Your task to perform on an android device: Go to Android settings Image 0: 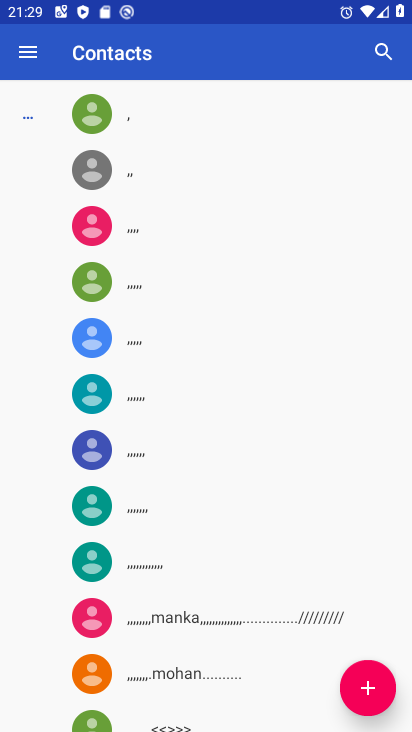
Step 0: press home button
Your task to perform on an android device: Go to Android settings Image 1: 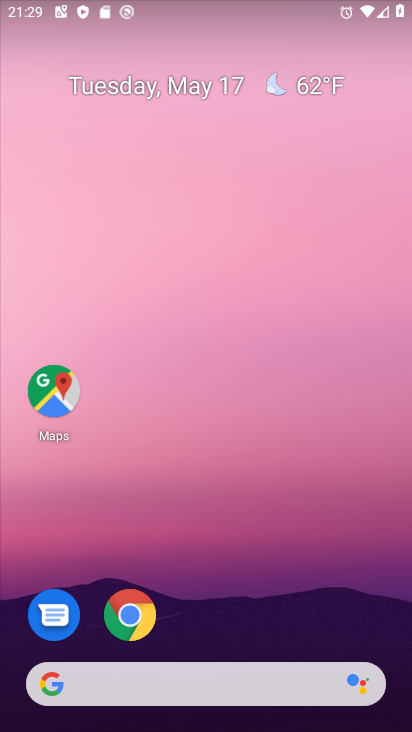
Step 1: drag from (238, 648) to (226, 117)
Your task to perform on an android device: Go to Android settings Image 2: 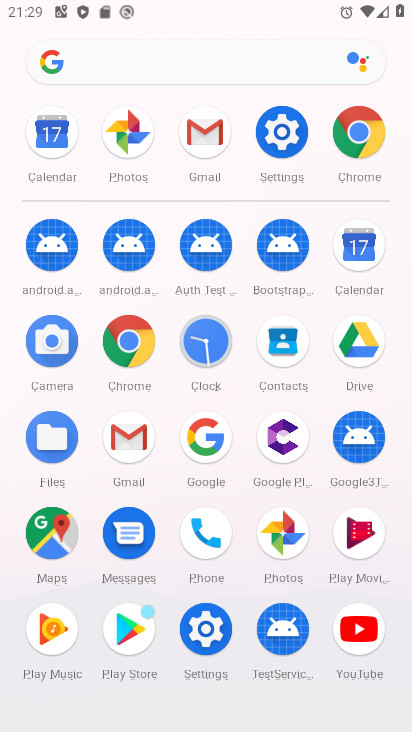
Step 2: click (222, 653)
Your task to perform on an android device: Go to Android settings Image 3: 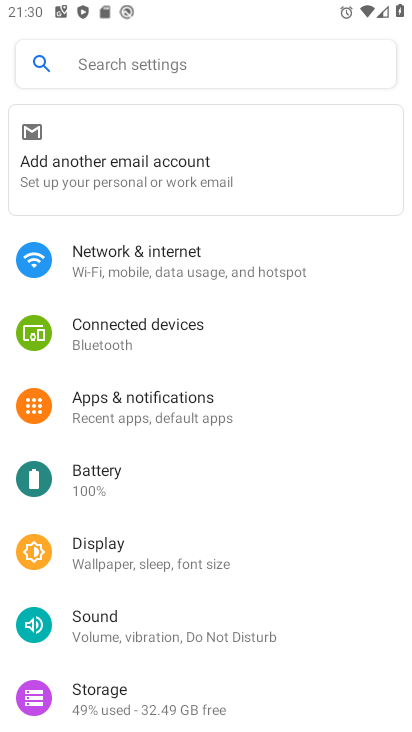
Step 3: drag from (210, 642) to (208, 101)
Your task to perform on an android device: Go to Android settings Image 4: 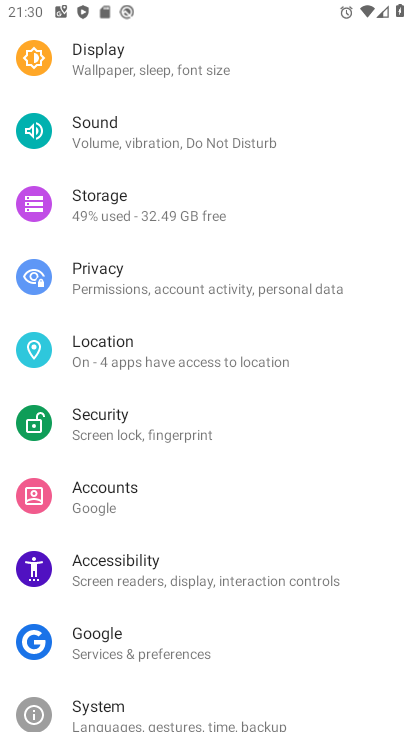
Step 4: drag from (163, 650) to (72, 38)
Your task to perform on an android device: Go to Android settings Image 5: 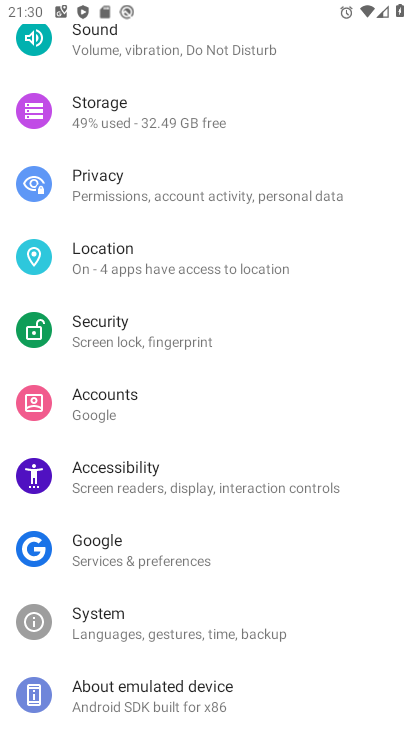
Step 5: click (109, 684)
Your task to perform on an android device: Go to Android settings Image 6: 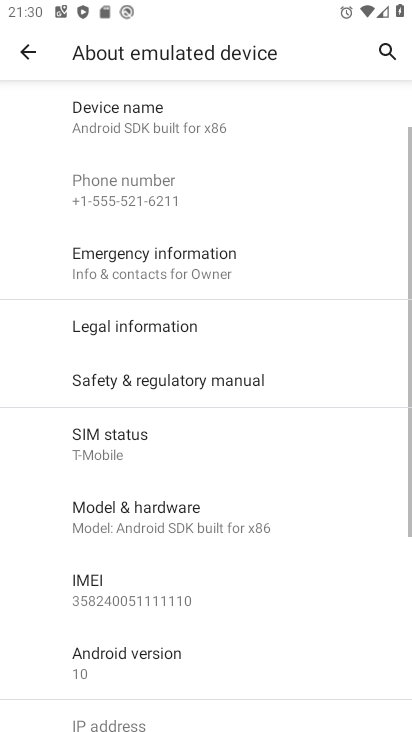
Step 6: click (58, 670)
Your task to perform on an android device: Go to Android settings Image 7: 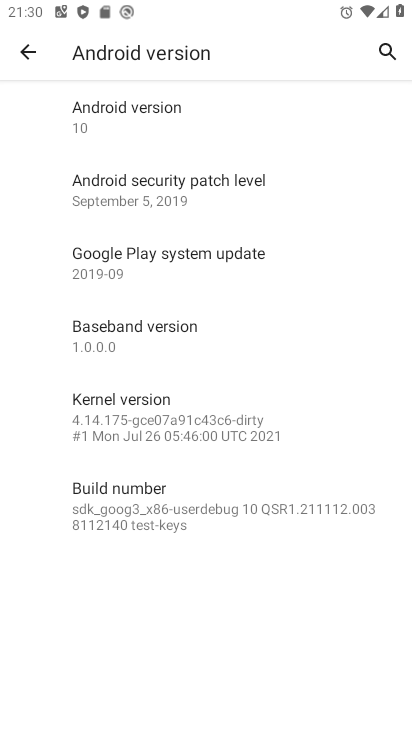
Step 7: task complete